Your task to perform on an android device: turn smart compose on in the gmail app Image 0: 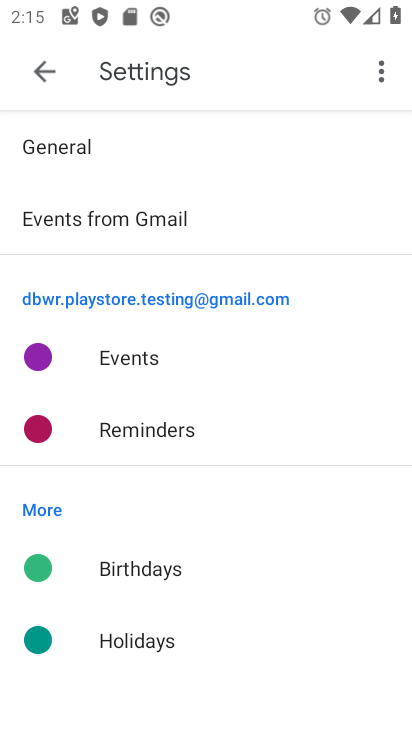
Step 0: press home button
Your task to perform on an android device: turn smart compose on in the gmail app Image 1: 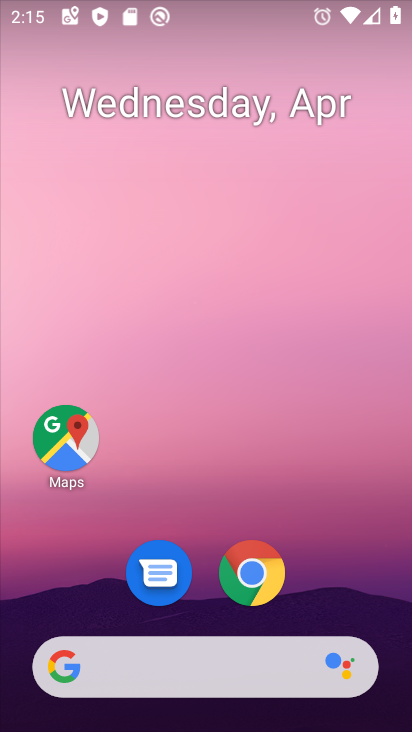
Step 1: drag from (344, 565) to (321, 108)
Your task to perform on an android device: turn smart compose on in the gmail app Image 2: 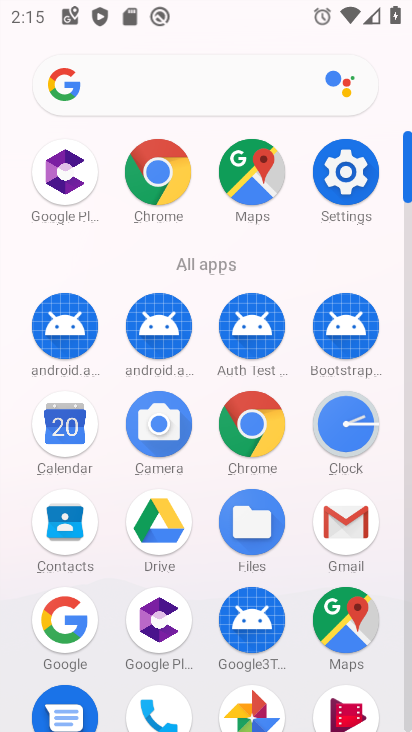
Step 2: click (351, 528)
Your task to perform on an android device: turn smart compose on in the gmail app Image 3: 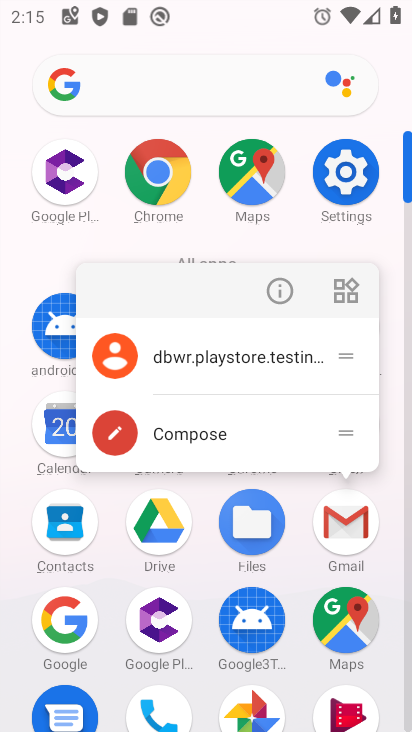
Step 3: click (347, 530)
Your task to perform on an android device: turn smart compose on in the gmail app Image 4: 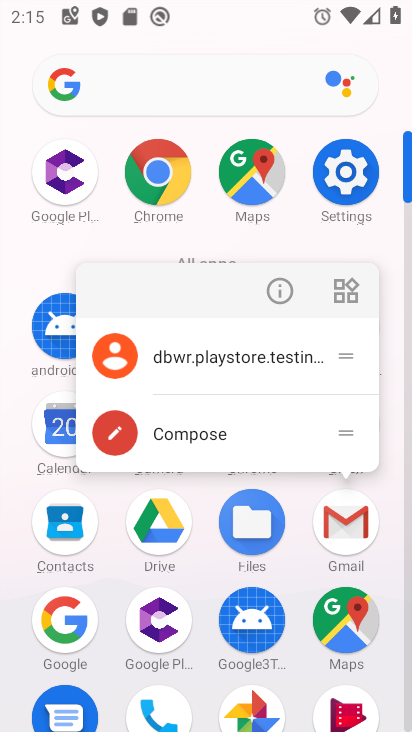
Step 4: click (359, 530)
Your task to perform on an android device: turn smart compose on in the gmail app Image 5: 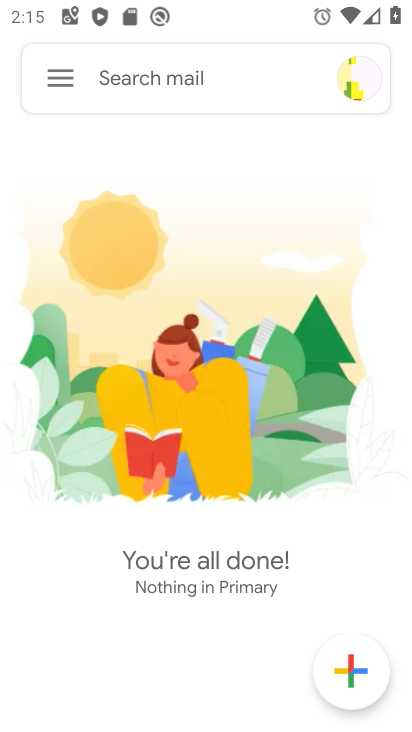
Step 5: click (61, 83)
Your task to perform on an android device: turn smart compose on in the gmail app Image 6: 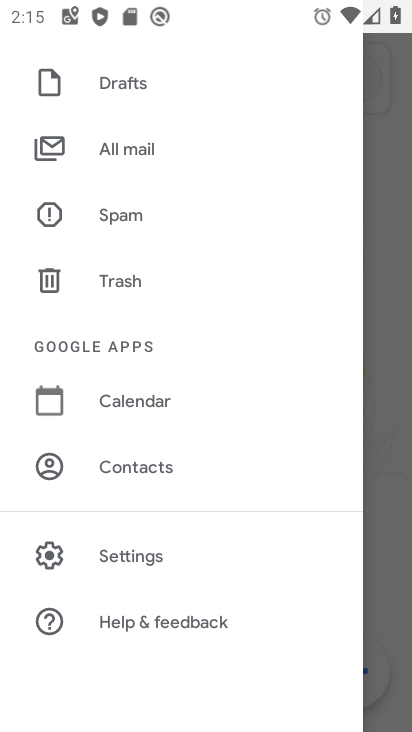
Step 6: click (144, 558)
Your task to perform on an android device: turn smart compose on in the gmail app Image 7: 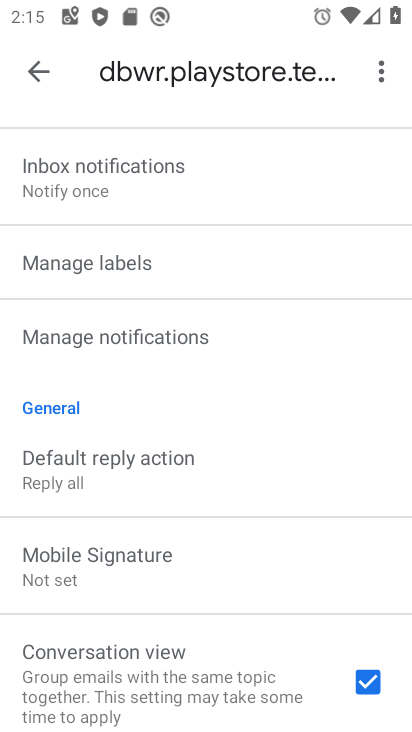
Step 7: task complete